Your task to perform on an android device: check out phone information Image 0: 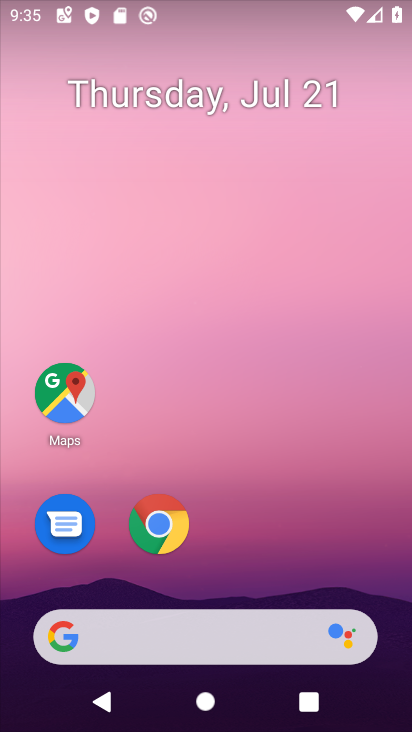
Step 0: press home button
Your task to perform on an android device: check out phone information Image 1: 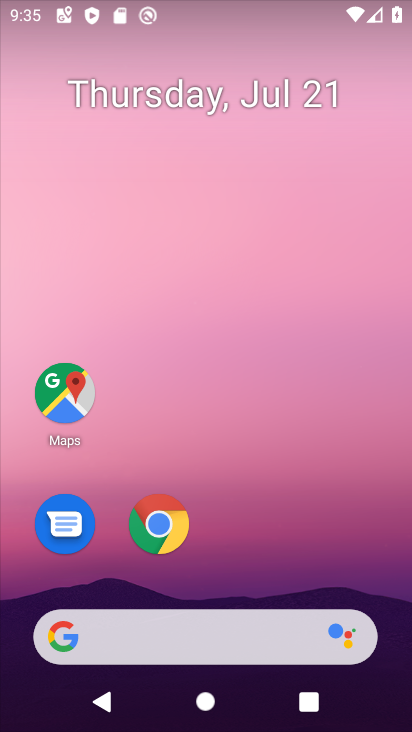
Step 1: drag from (184, 638) to (264, 145)
Your task to perform on an android device: check out phone information Image 2: 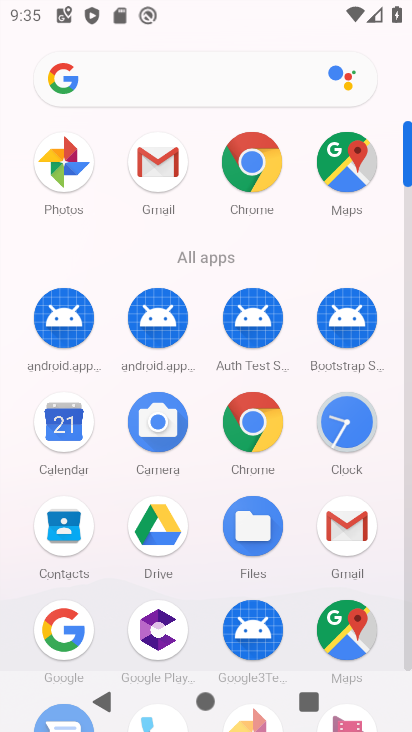
Step 2: drag from (200, 643) to (297, 150)
Your task to perform on an android device: check out phone information Image 3: 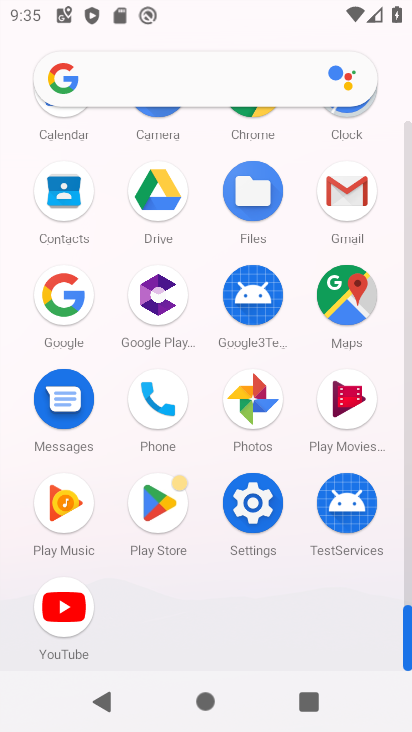
Step 3: click (251, 508)
Your task to perform on an android device: check out phone information Image 4: 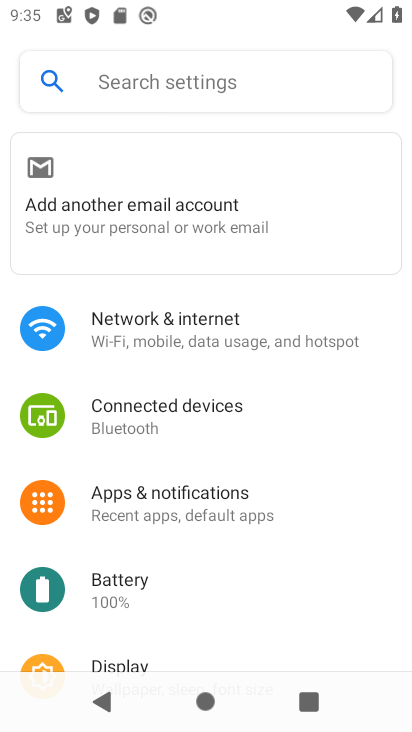
Step 4: drag from (226, 627) to (299, 256)
Your task to perform on an android device: check out phone information Image 5: 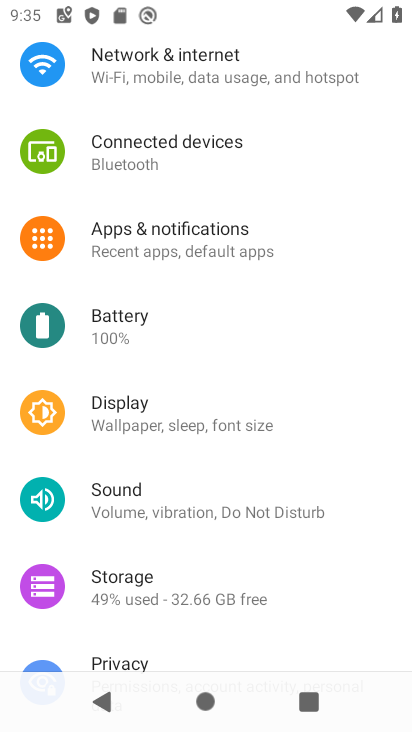
Step 5: drag from (292, 610) to (294, 183)
Your task to perform on an android device: check out phone information Image 6: 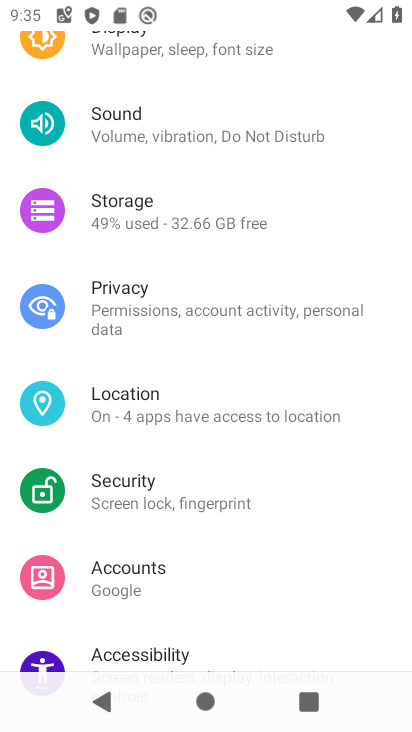
Step 6: drag from (241, 597) to (284, 196)
Your task to perform on an android device: check out phone information Image 7: 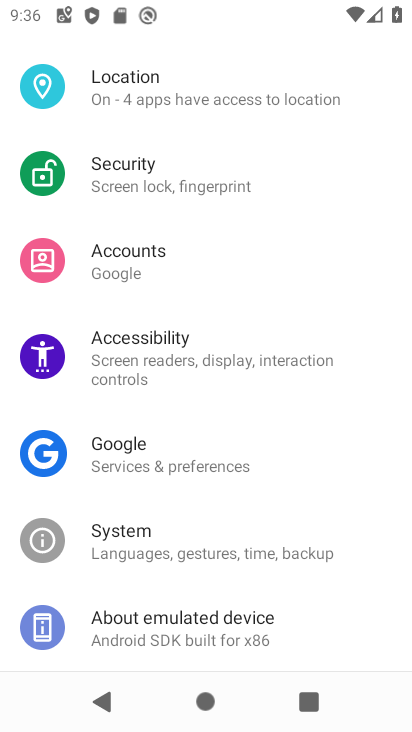
Step 7: click (199, 629)
Your task to perform on an android device: check out phone information Image 8: 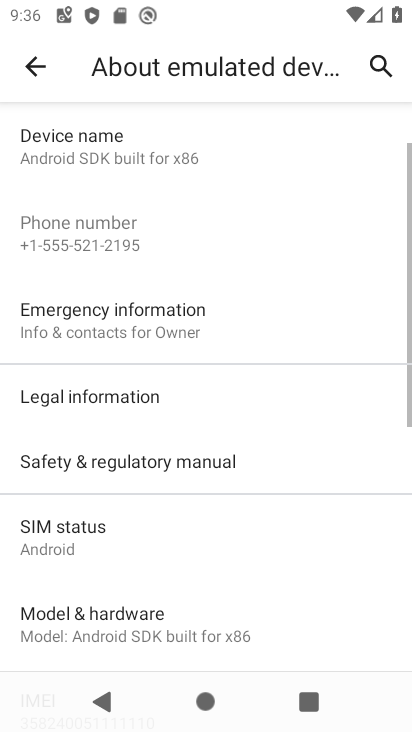
Step 8: task complete